Your task to perform on an android device: change the upload size in google photos Image 0: 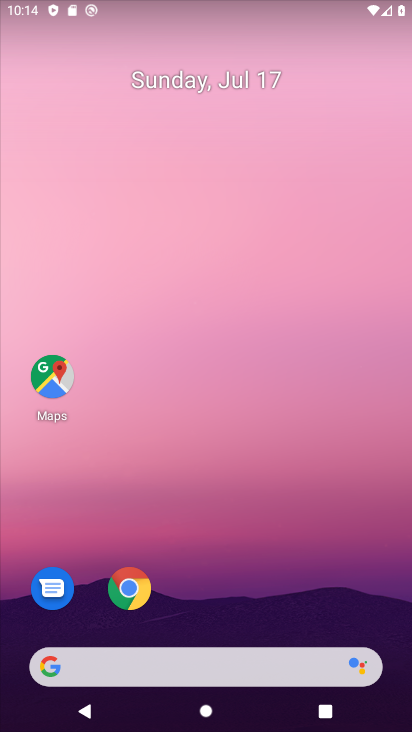
Step 0: drag from (192, 623) to (245, 92)
Your task to perform on an android device: change the upload size in google photos Image 1: 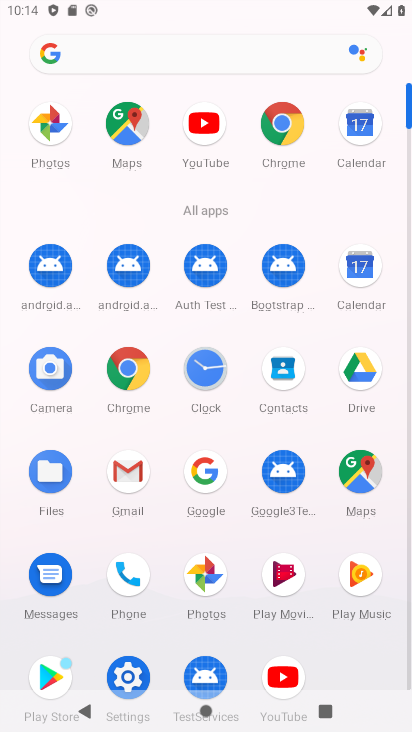
Step 1: click (192, 593)
Your task to perform on an android device: change the upload size in google photos Image 2: 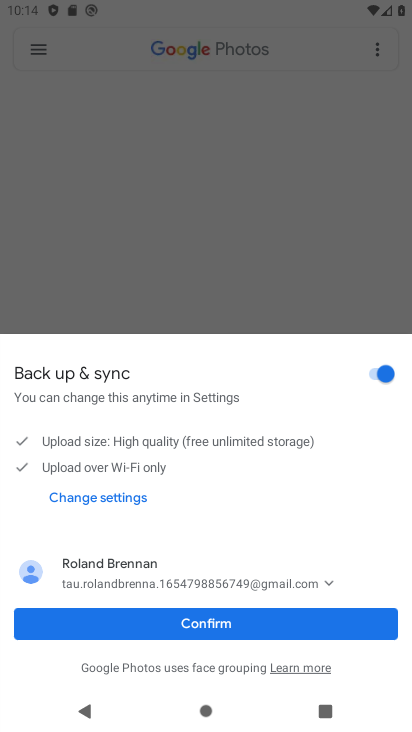
Step 2: click (196, 633)
Your task to perform on an android device: change the upload size in google photos Image 3: 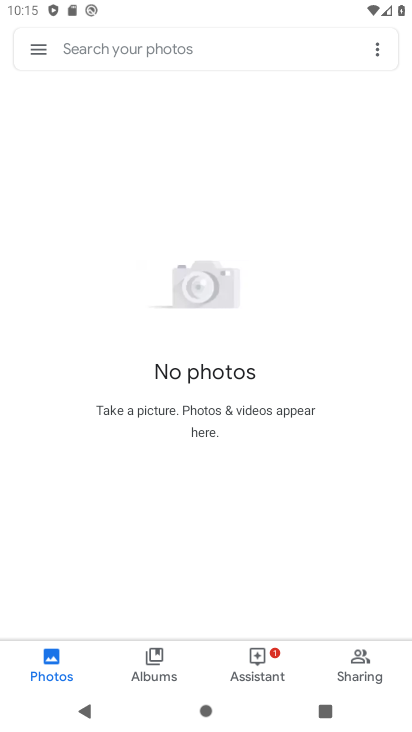
Step 3: click (45, 61)
Your task to perform on an android device: change the upload size in google photos Image 4: 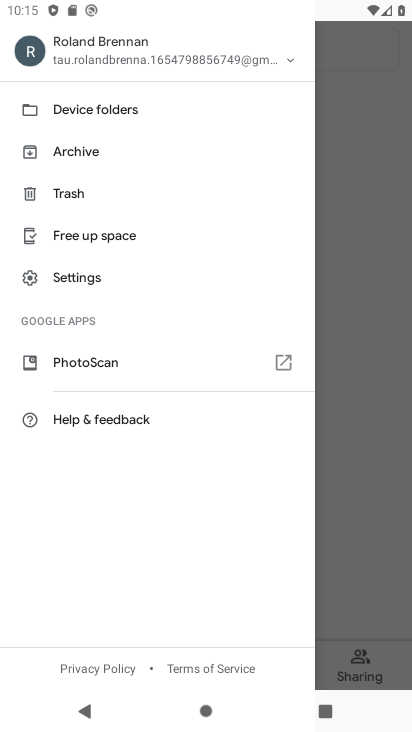
Step 4: click (136, 269)
Your task to perform on an android device: change the upload size in google photos Image 5: 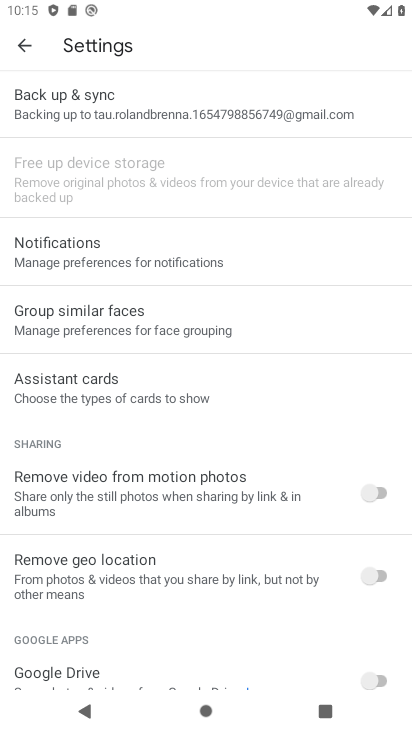
Step 5: click (136, 105)
Your task to perform on an android device: change the upload size in google photos Image 6: 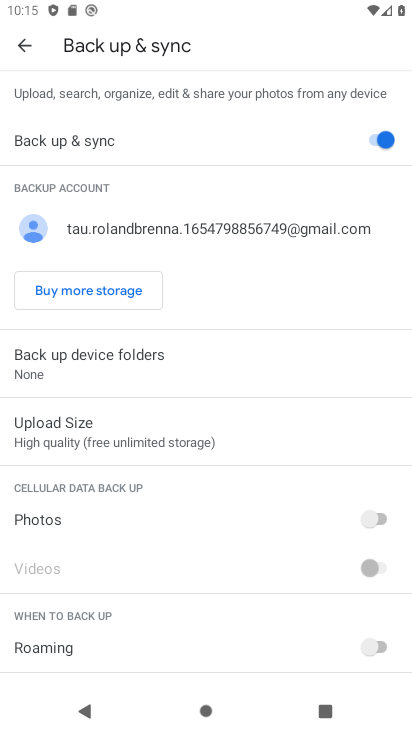
Step 6: click (128, 443)
Your task to perform on an android device: change the upload size in google photos Image 7: 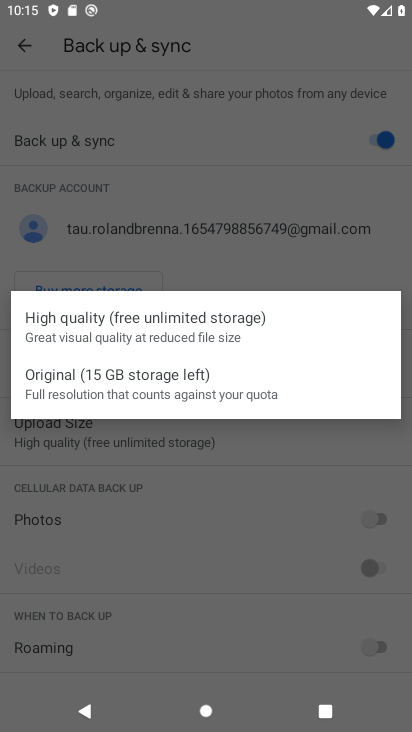
Step 7: click (143, 377)
Your task to perform on an android device: change the upload size in google photos Image 8: 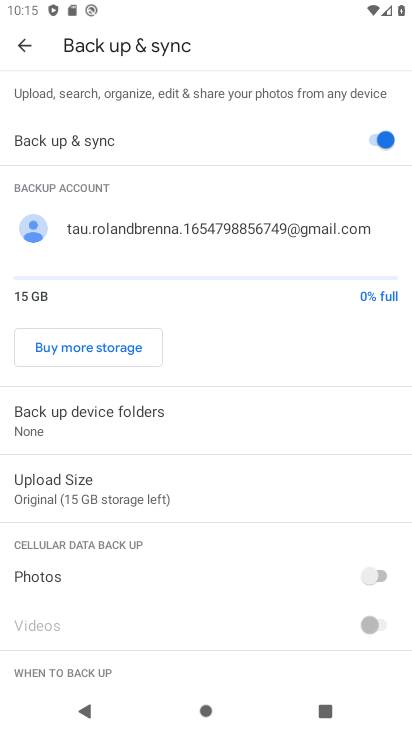
Step 8: task complete